Your task to perform on an android device: read, delete, or share a saved page in the chrome app Image 0: 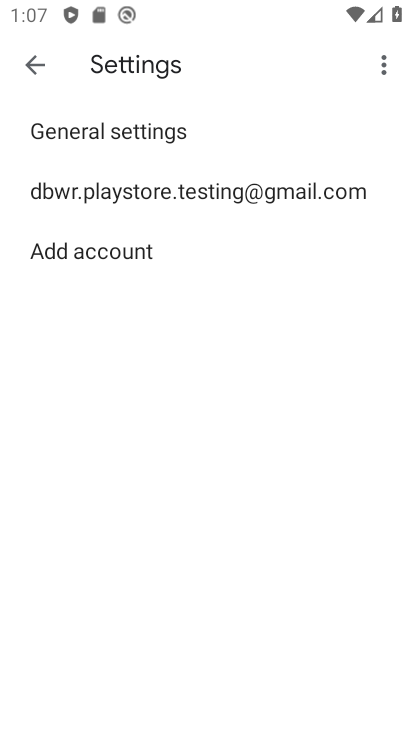
Step 0: press home button
Your task to perform on an android device: read, delete, or share a saved page in the chrome app Image 1: 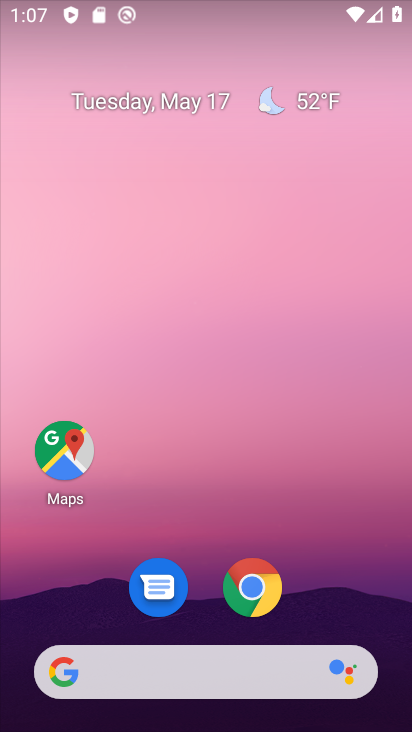
Step 1: drag from (310, 561) to (269, 299)
Your task to perform on an android device: read, delete, or share a saved page in the chrome app Image 2: 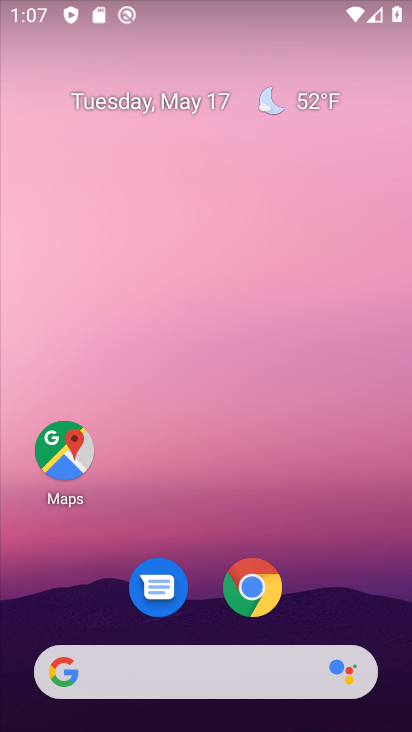
Step 2: click (292, 588)
Your task to perform on an android device: read, delete, or share a saved page in the chrome app Image 3: 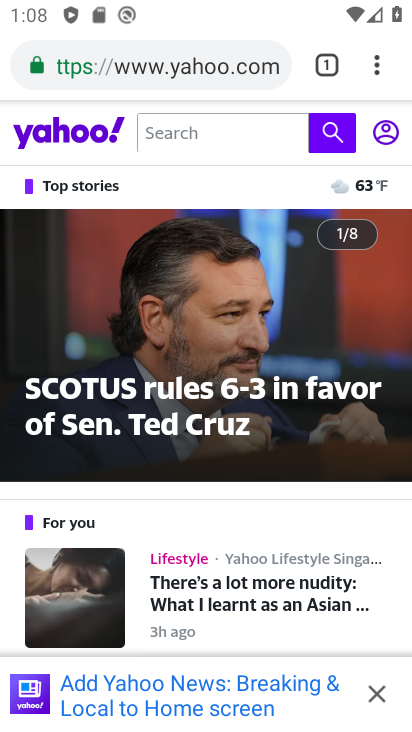
Step 3: click (381, 72)
Your task to perform on an android device: read, delete, or share a saved page in the chrome app Image 4: 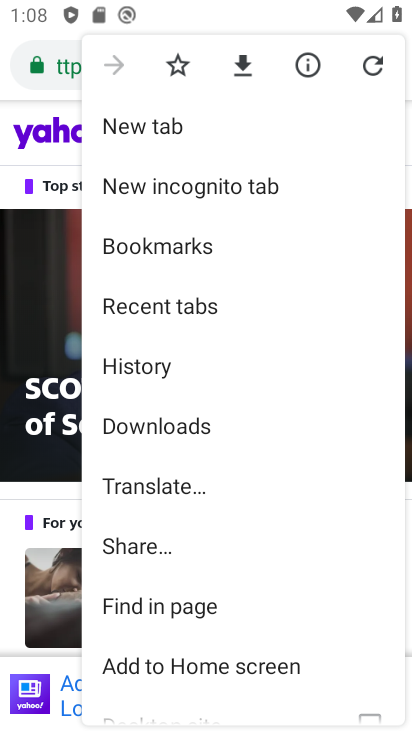
Step 4: click (192, 445)
Your task to perform on an android device: read, delete, or share a saved page in the chrome app Image 5: 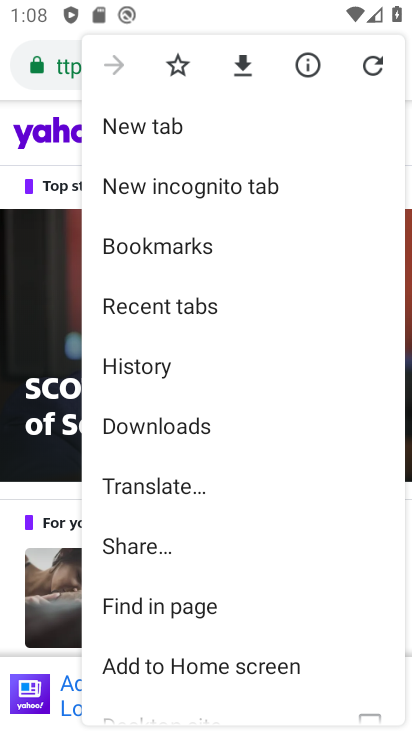
Step 5: click (192, 445)
Your task to perform on an android device: read, delete, or share a saved page in the chrome app Image 6: 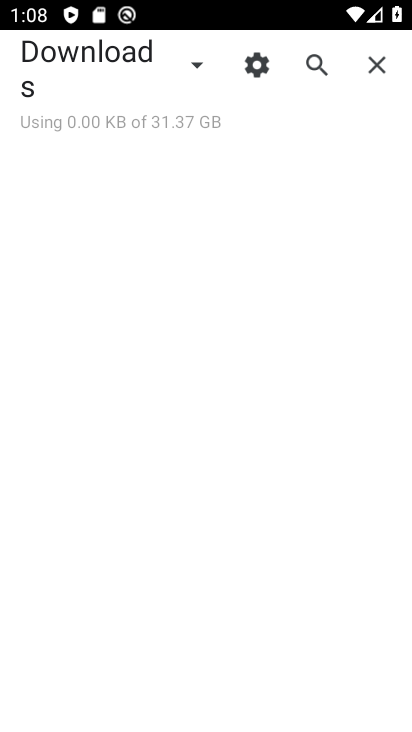
Step 6: task complete